Your task to perform on an android device: toggle notifications settings in the gmail app Image 0: 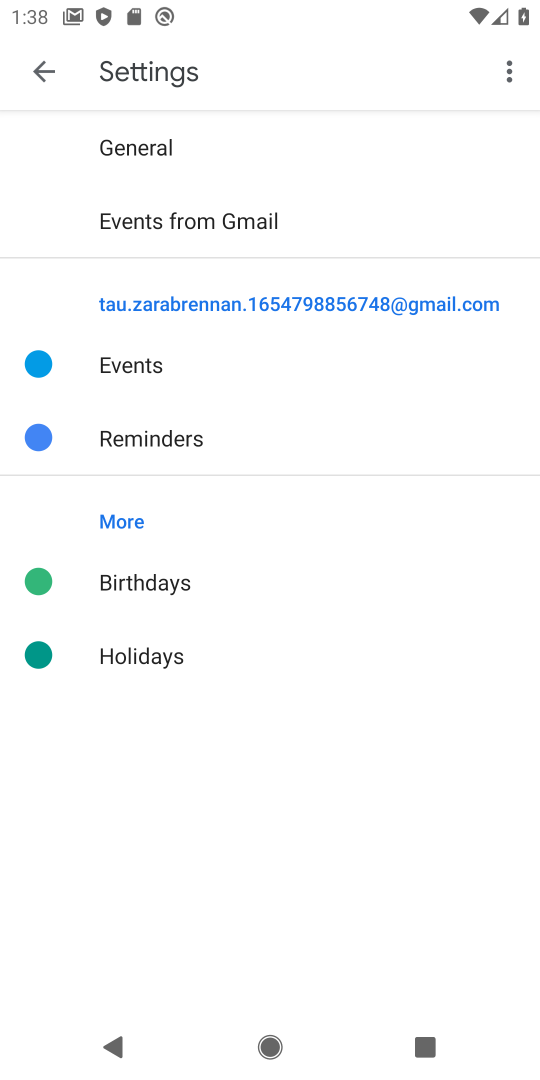
Step 0: press home button
Your task to perform on an android device: toggle notifications settings in the gmail app Image 1: 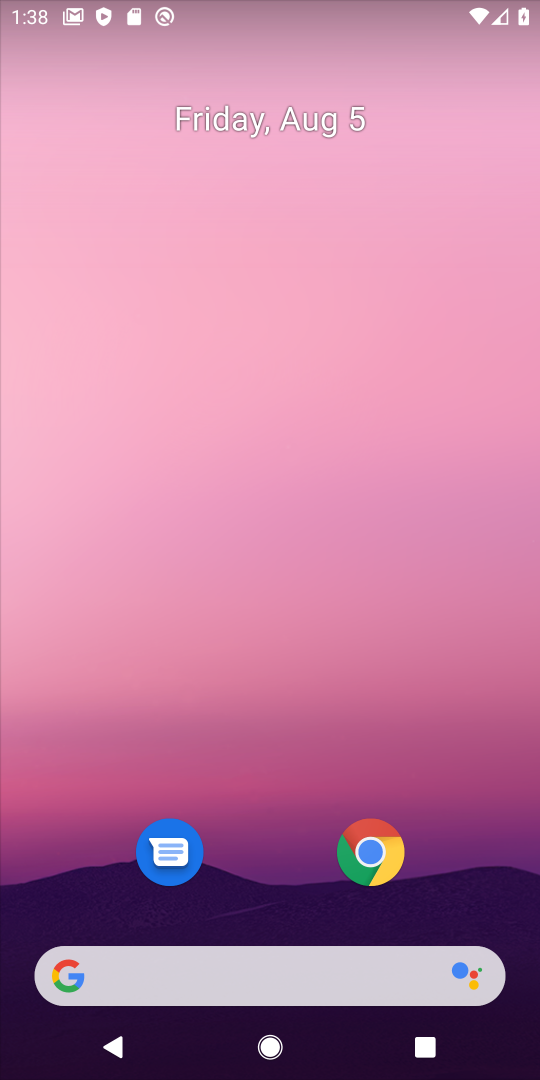
Step 1: drag from (278, 808) to (307, 69)
Your task to perform on an android device: toggle notifications settings in the gmail app Image 2: 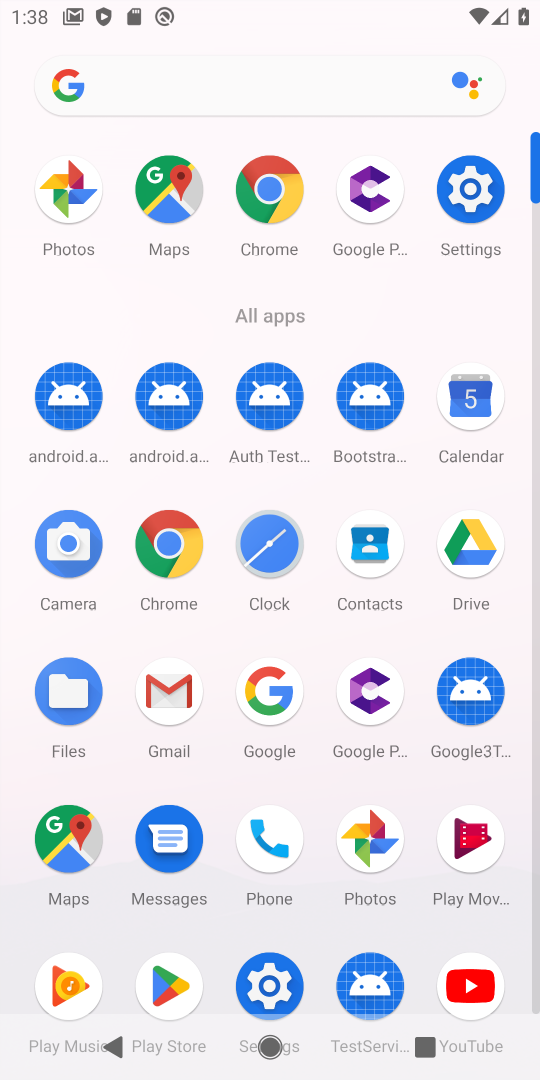
Step 2: click (165, 692)
Your task to perform on an android device: toggle notifications settings in the gmail app Image 3: 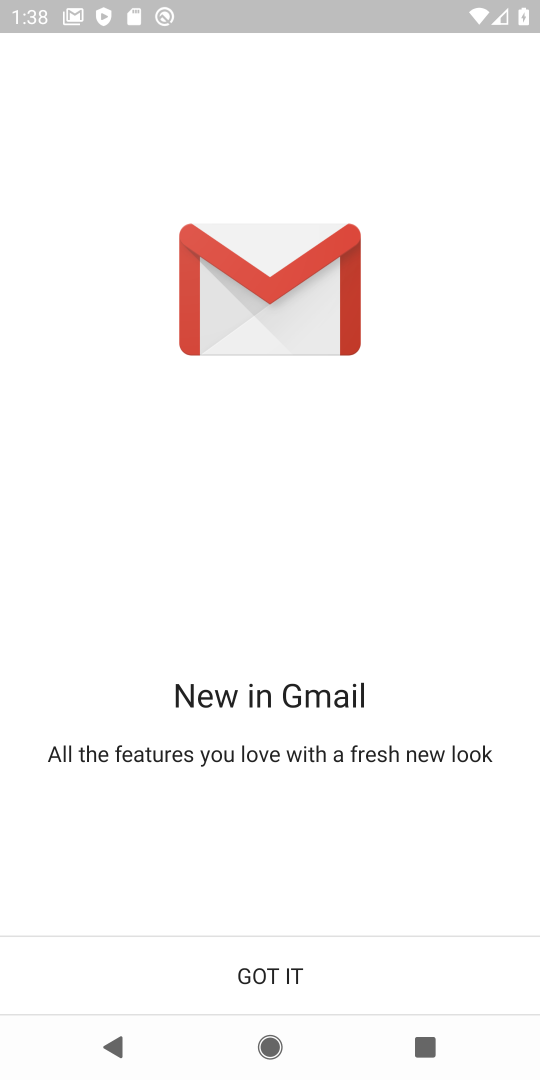
Step 3: click (249, 975)
Your task to perform on an android device: toggle notifications settings in the gmail app Image 4: 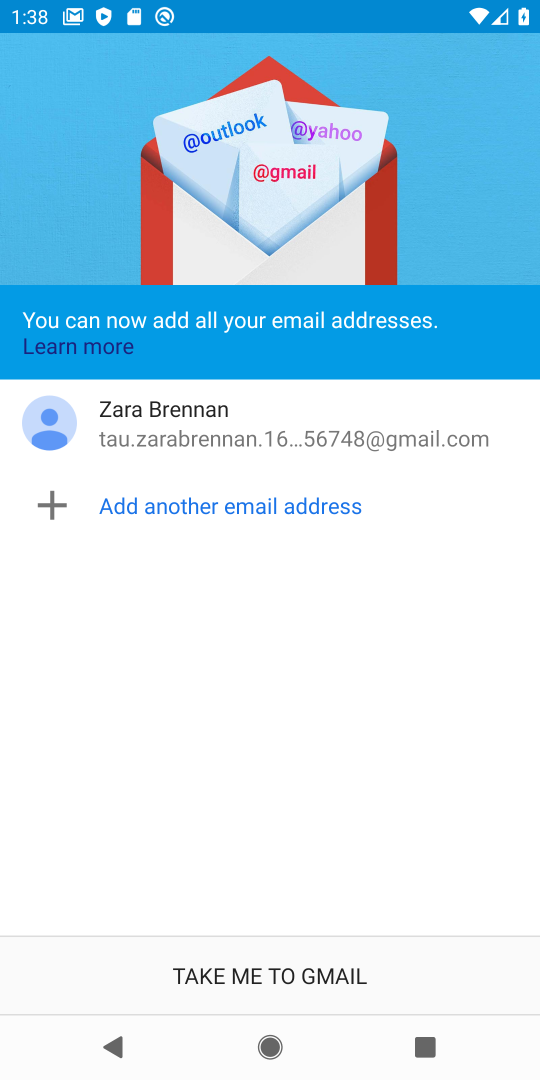
Step 4: click (275, 970)
Your task to perform on an android device: toggle notifications settings in the gmail app Image 5: 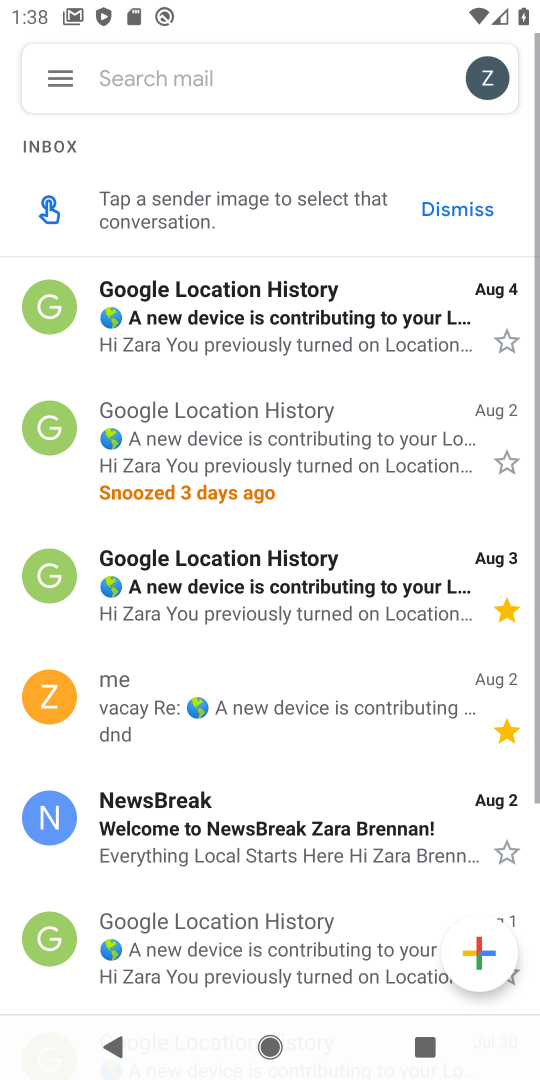
Step 5: click (58, 81)
Your task to perform on an android device: toggle notifications settings in the gmail app Image 6: 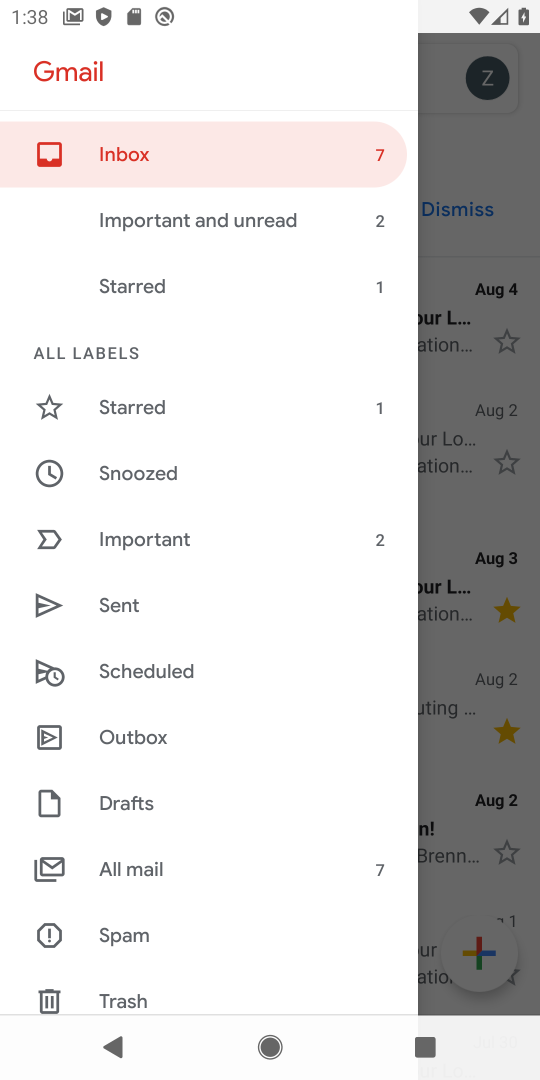
Step 6: drag from (159, 931) to (200, 360)
Your task to perform on an android device: toggle notifications settings in the gmail app Image 7: 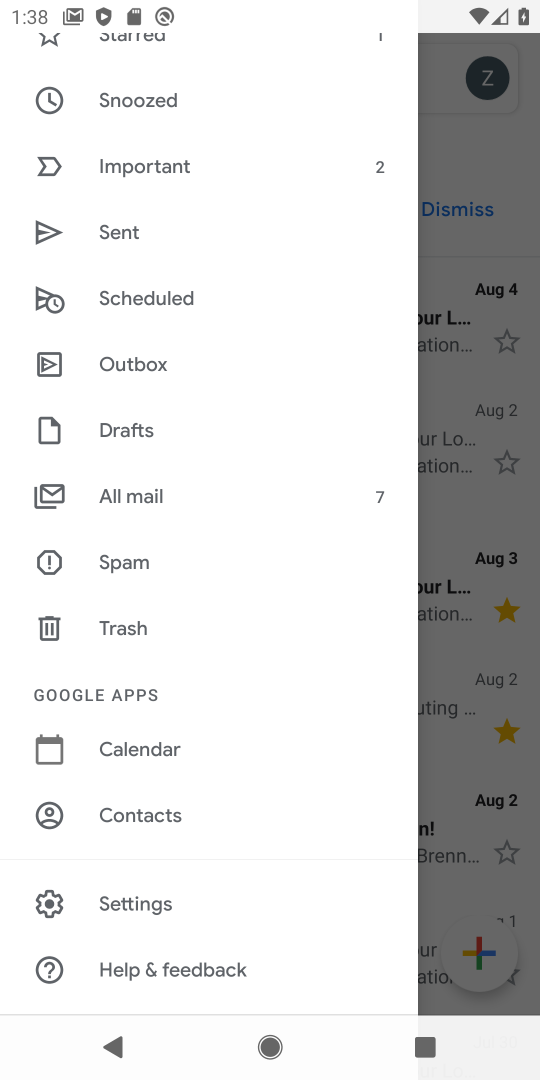
Step 7: click (118, 896)
Your task to perform on an android device: toggle notifications settings in the gmail app Image 8: 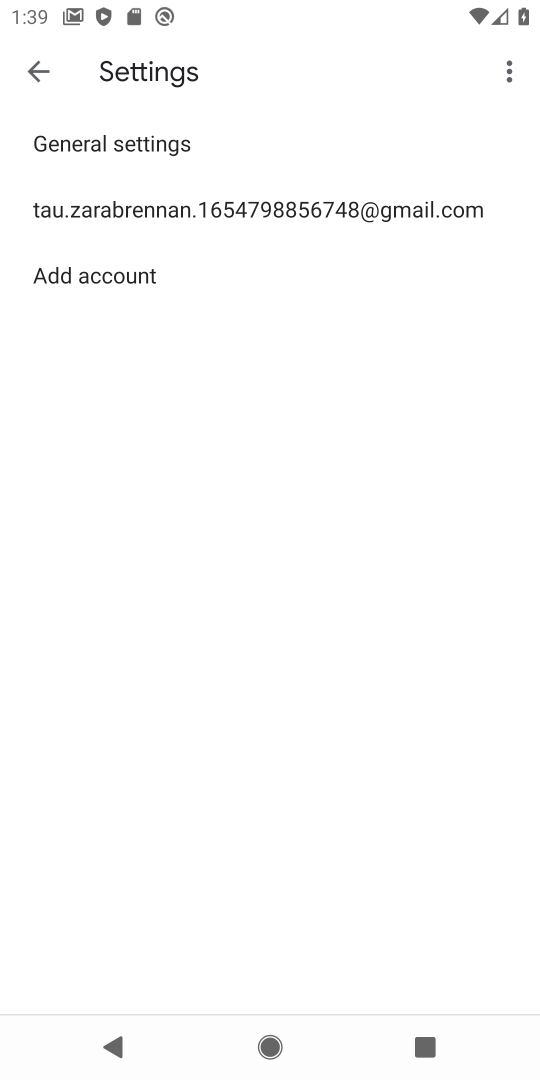
Step 8: click (102, 138)
Your task to perform on an android device: toggle notifications settings in the gmail app Image 9: 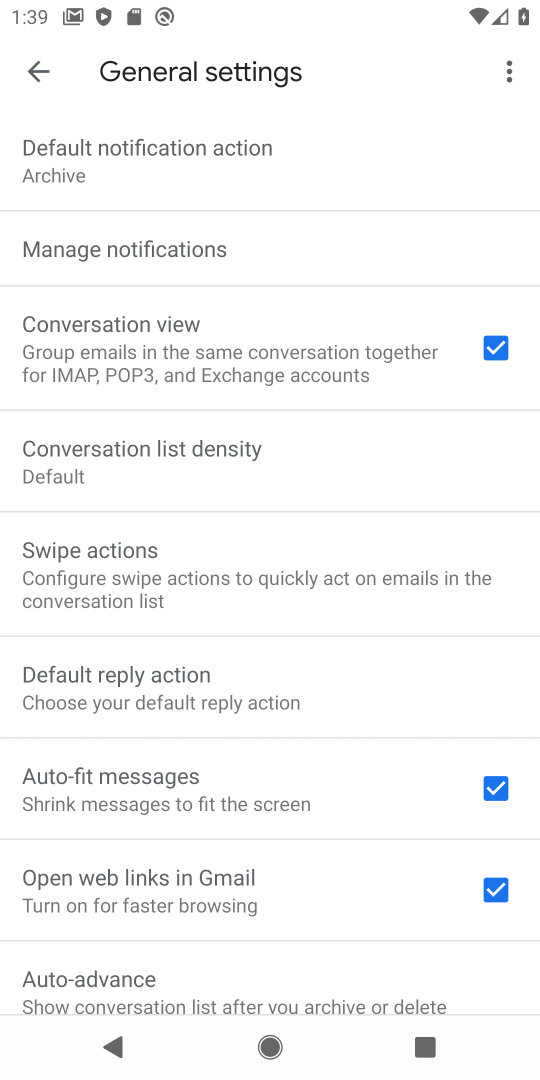
Step 9: click (124, 258)
Your task to perform on an android device: toggle notifications settings in the gmail app Image 10: 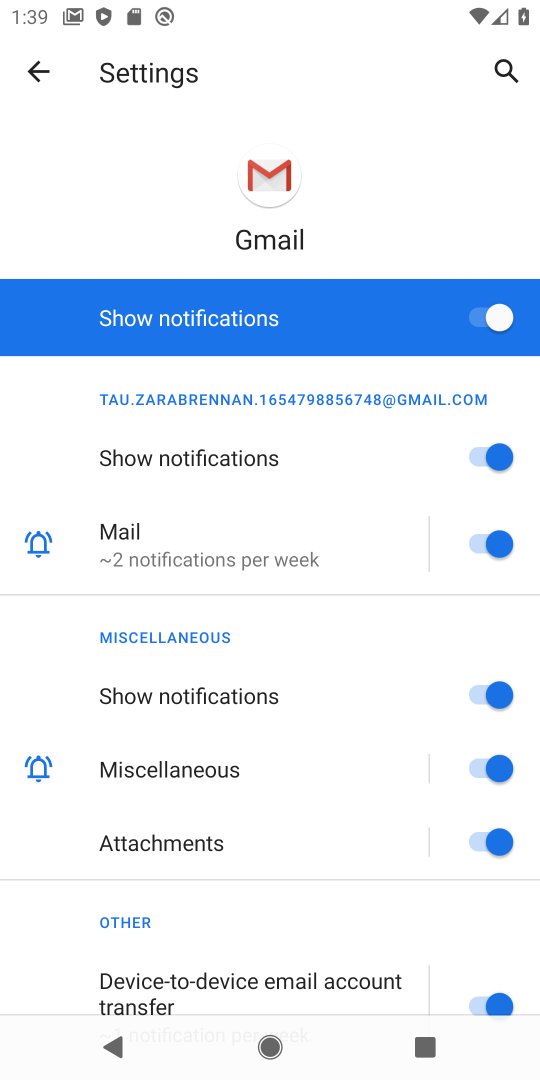
Step 10: click (502, 307)
Your task to perform on an android device: toggle notifications settings in the gmail app Image 11: 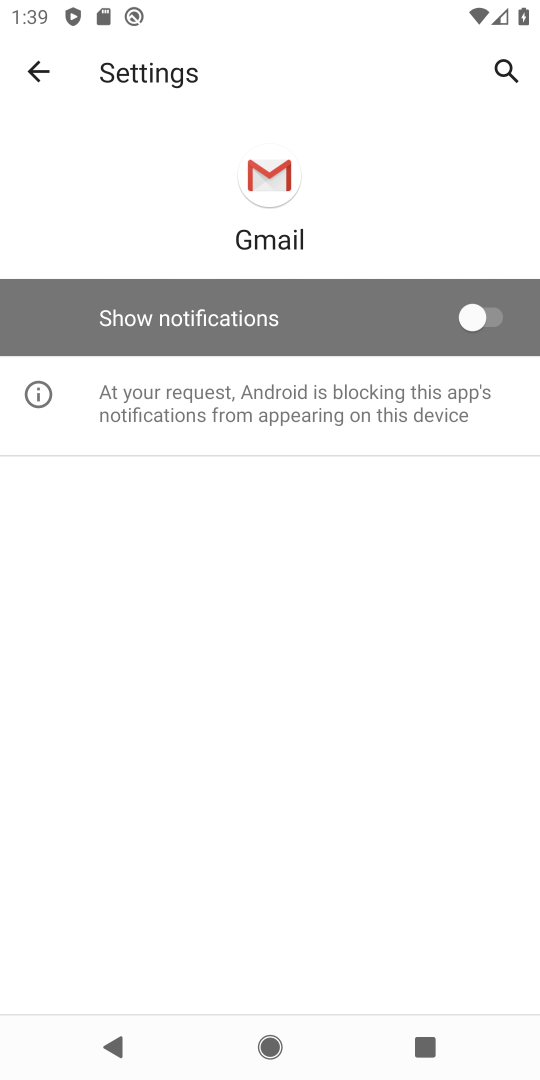
Step 11: task complete